Your task to perform on an android device: Open Yahoo.com Image 0: 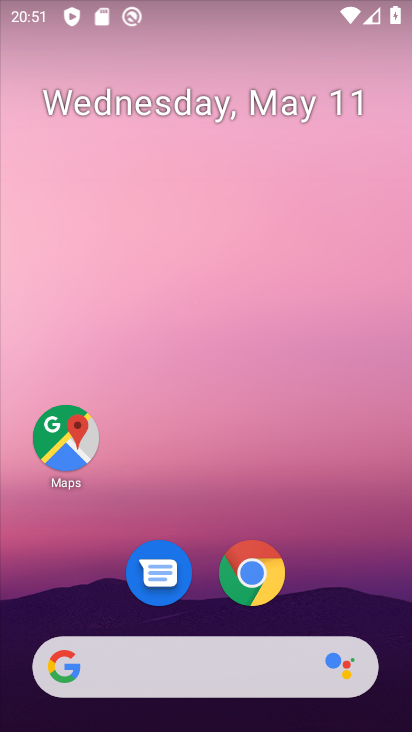
Step 0: click (270, 572)
Your task to perform on an android device: Open Yahoo.com Image 1: 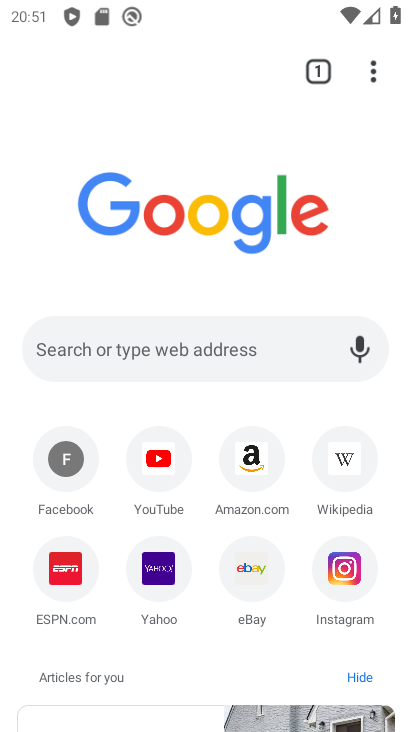
Step 1: drag from (227, 374) to (257, 255)
Your task to perform on an android device: Open Yahoo.com Image 2: 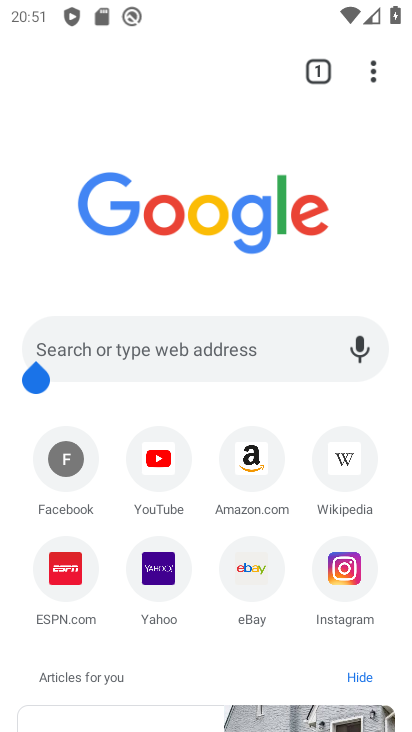
Step 2: click (171, 577)
Your task to perform on an android device: Open Yahoo.com Image 3: 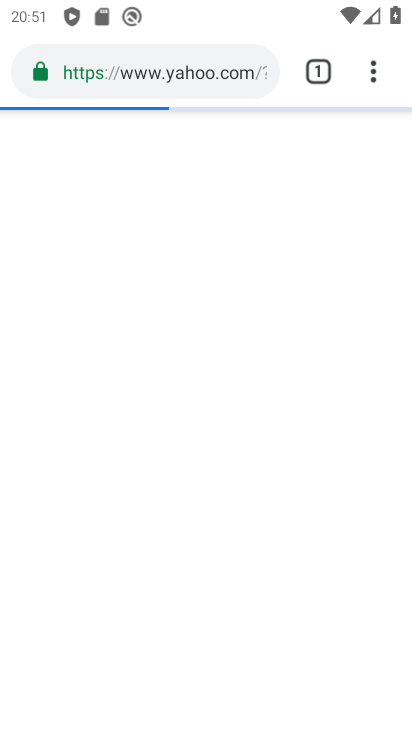
Step 3: task complete